Your task to perform on an android device: find which apps use the phone's location Image 0: 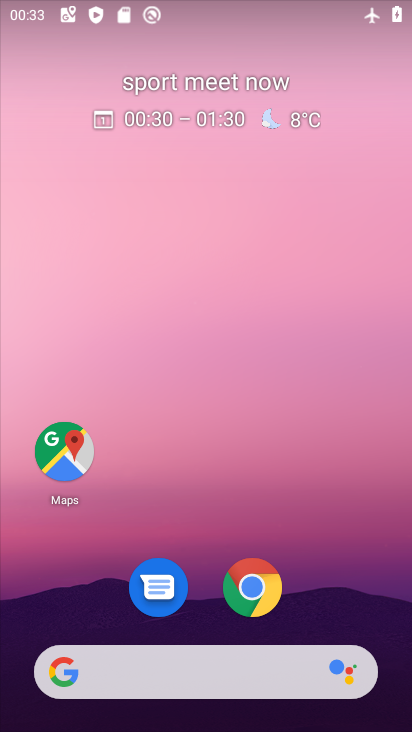
Step 0: drag from (395, 602) to (399, 380)
Your task to perform on an android device: find which apps use the phone's location Image 1: 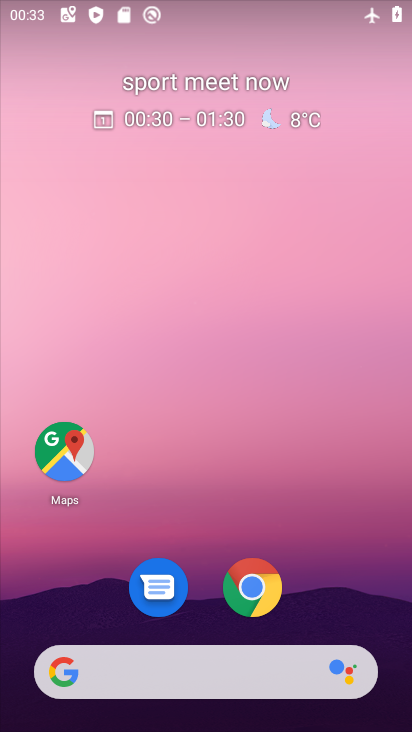
Step 1: drag from (395, 452) to (396, 258)
Your task to perform on an android device: find which apps use the phone's location Image 2: 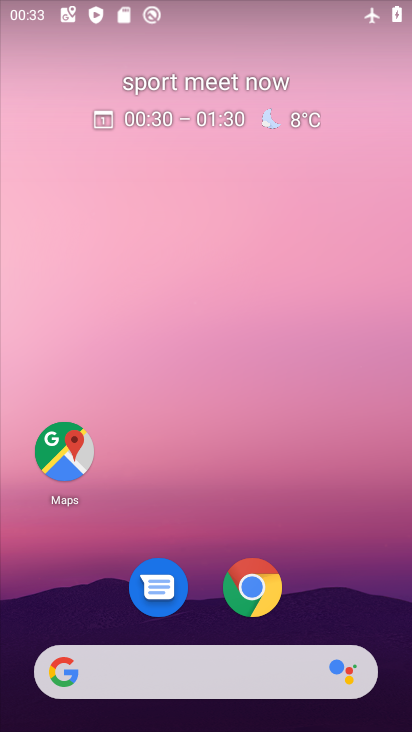
Step 2: drag from (393, 675) to (399, 326)
Your task to perform on an android device: find which apps use the phone's location Image 3: 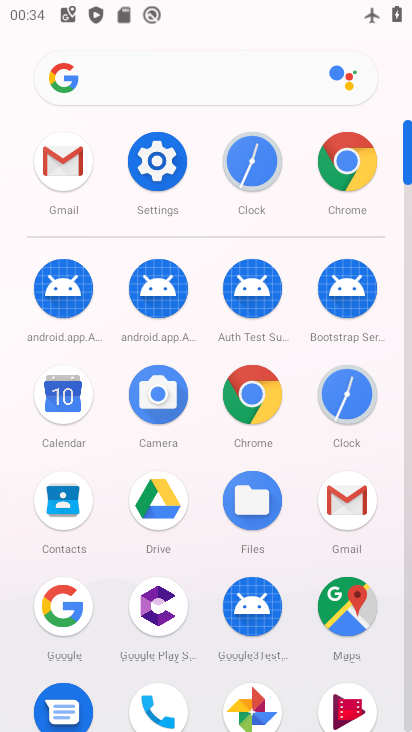
Step 3: click (147, 176)
Your task to perform on an android device: find which apps use the phone's location Image 4: 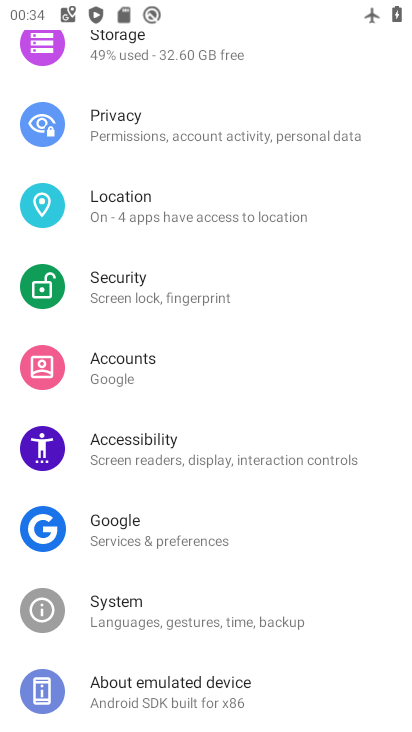
Step 4: click (149, 210)
Your task to perform on an android device: find which apps use the phone's location Image 5: 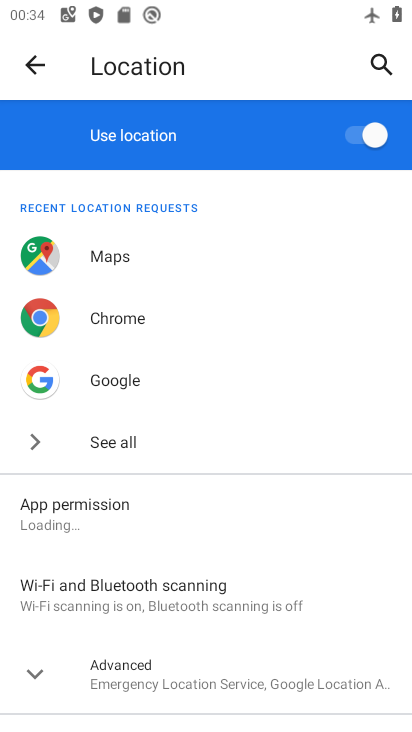
Step 5: drag from (324, 625) to (354, 347)
Your task to perform on an android device: find which apps use the phone's location Image 6: 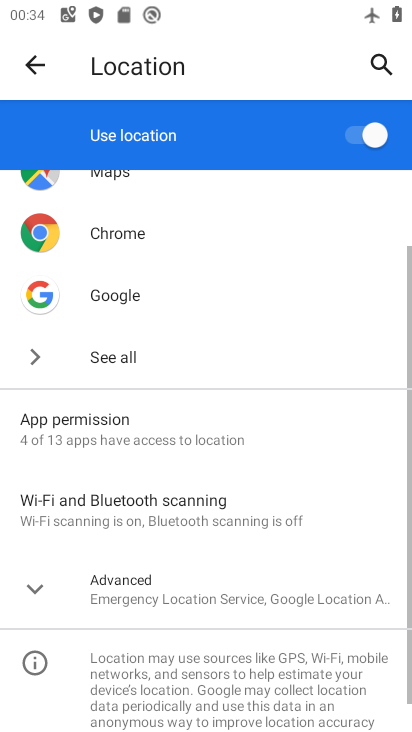
Step 6: click (34, 591)
Your task to perform on an android device: find which apps use the phone's location Image 7: 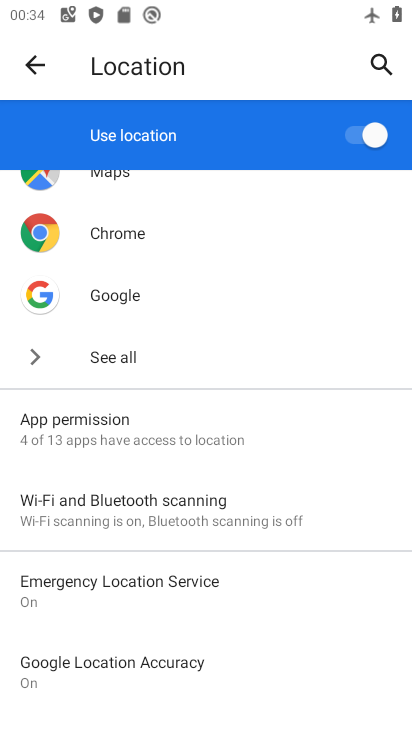
Step 7: click (47, 416)
Your task to perform on an android device: find which apps use the phone's location Image 8: 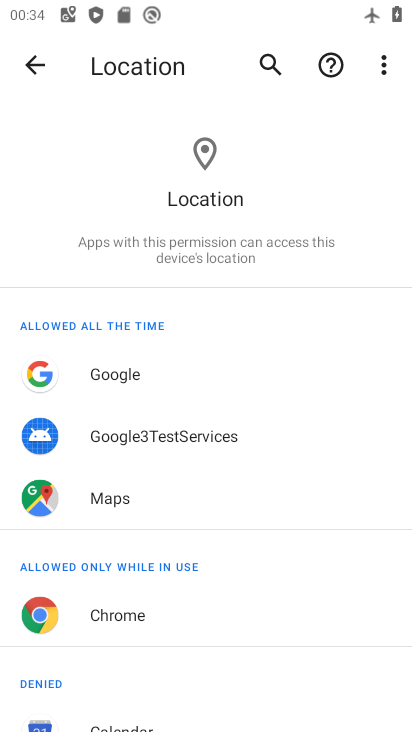
Step 8: task complete